Your task to perform on an android device: Toggle the flashlight Image 0: 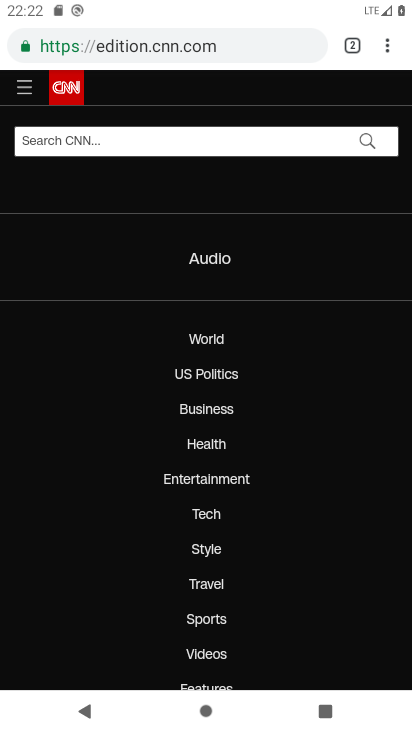
Step 0: press home button
Your task to perform on an android device: Toggle the flashlight Image 1: 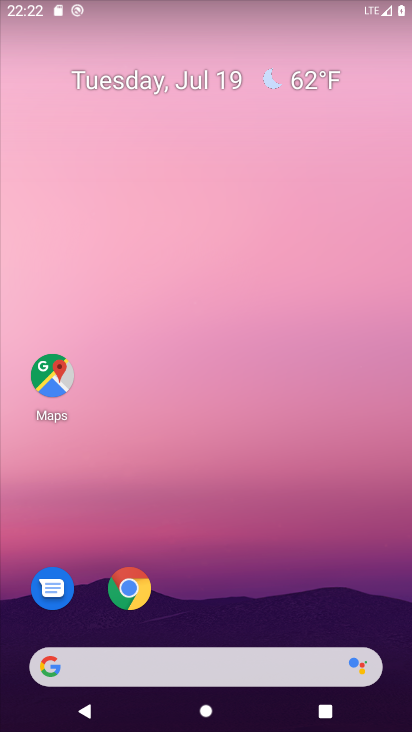
Step 1: task complete